Your task to perform on an android device: create a new album in the google photos Image 0: 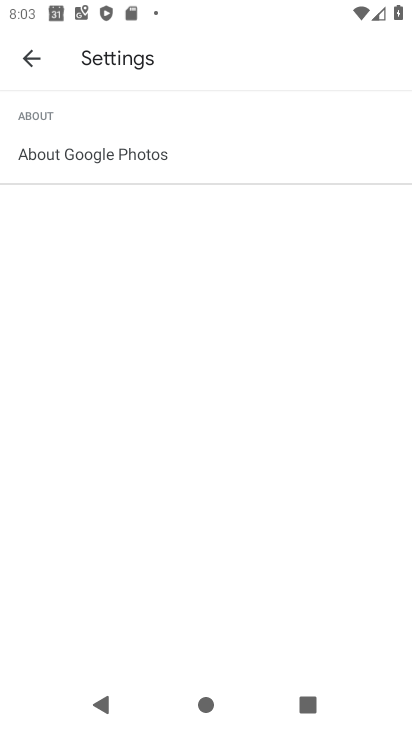
Step 0: press home button
Your task to perform on an android device: create a new album in the google photos Image 1: 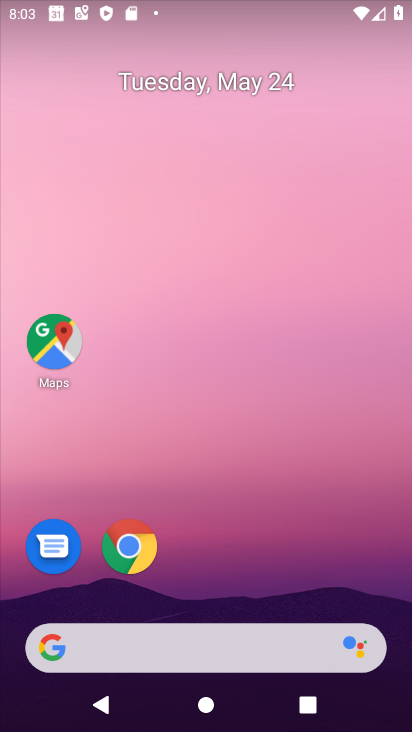
Step 1: drag from (219, 561) to (269, 1)
Your task to perform on an android device: create a new album in the google photos Image 2: 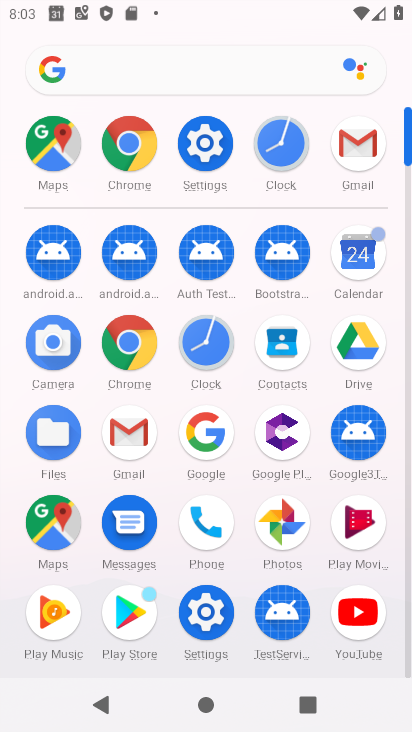
Step 2: click (267, 520)
Your task to perform on an android device: create a new album in the google photos Image 3: 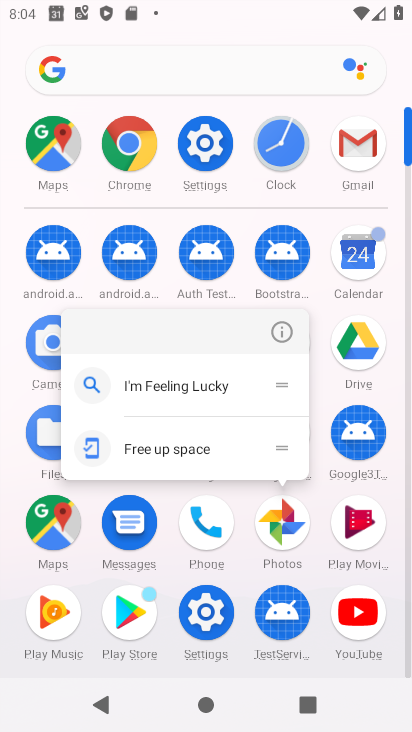
Step 3: click (294, 525)
Your task to perform on an android device: create a new album in the google photos Image 4: 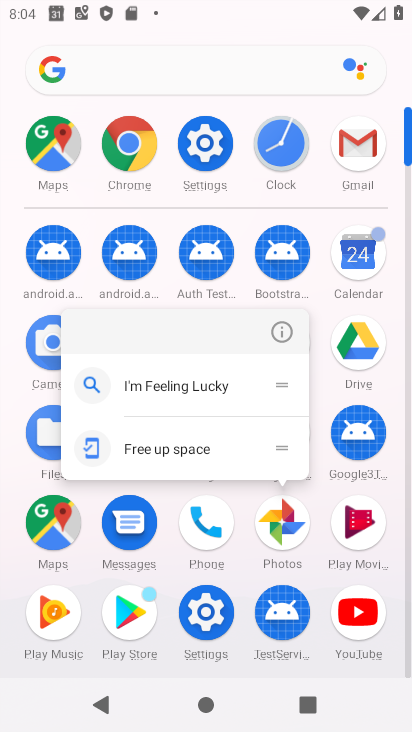
Step 4: click (294, 510)
Your task to perform on an android device: create a new album in the google photos Image 5: 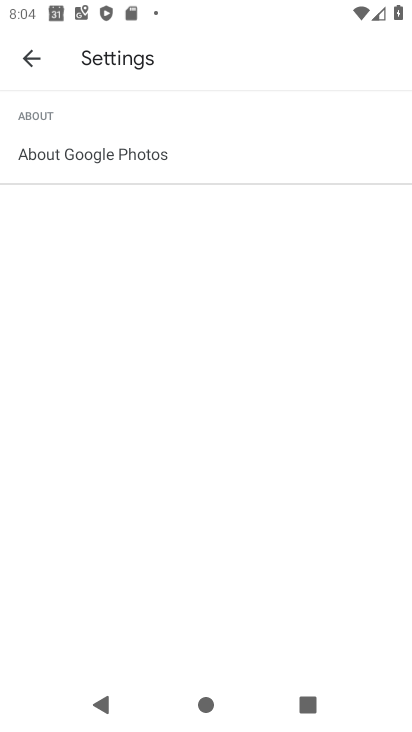
Step 5: click (38, 52)
Your task to perform on an android device: create a new album in the google photos Image 6: 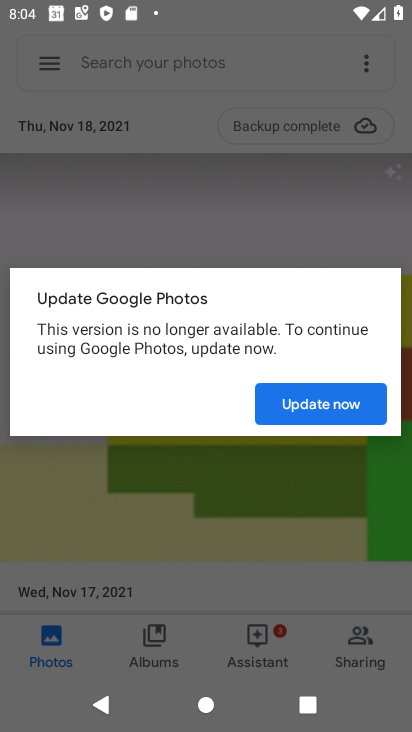
Step 6: click (292, 401)
Your task to perform on an android device: create a new album in the google photos Image 7: 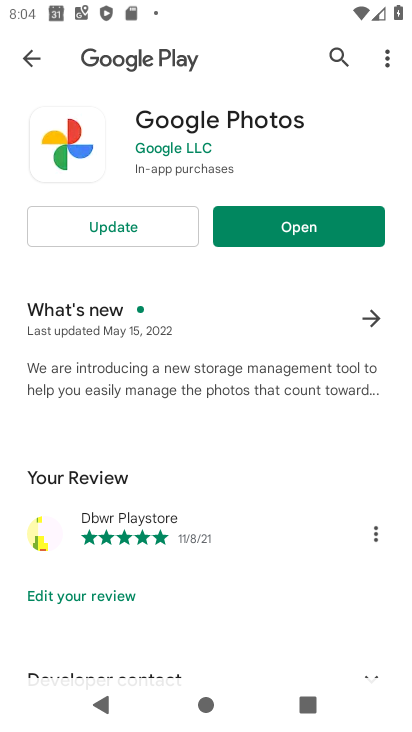
Step 7: click (295, 227)
Your task to perform on an android device: create a new album in the google photos Image 8: 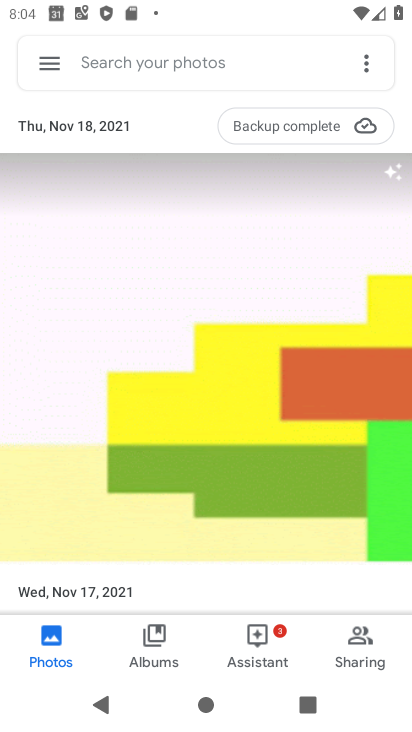
Step 8: click (149, 643)
Your task to perform on an android device: create a new album in the google photos Image 9: 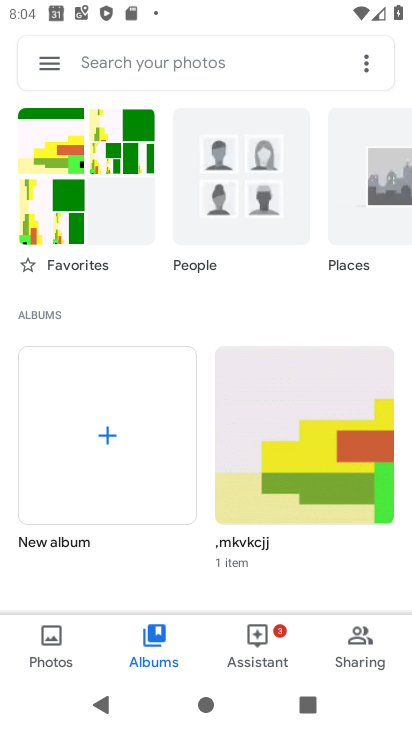
Step 9: click (112, 432)
Your task to perform on an android device: create a new album in the google photos Image 10: 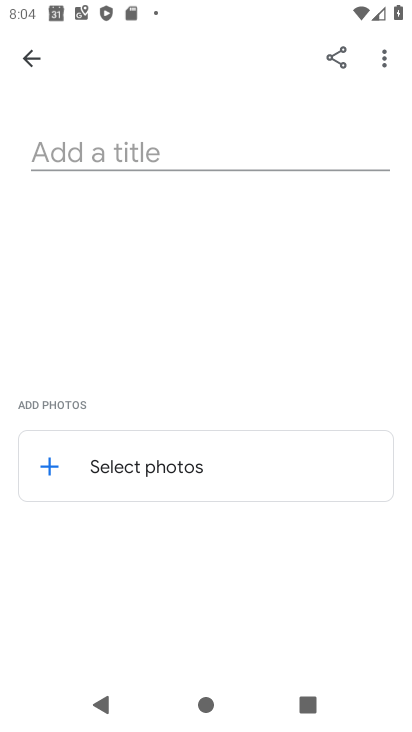
Step 10: click (215, 142)
Your task to perform on an android device: create a new album in the google photos Image 11: 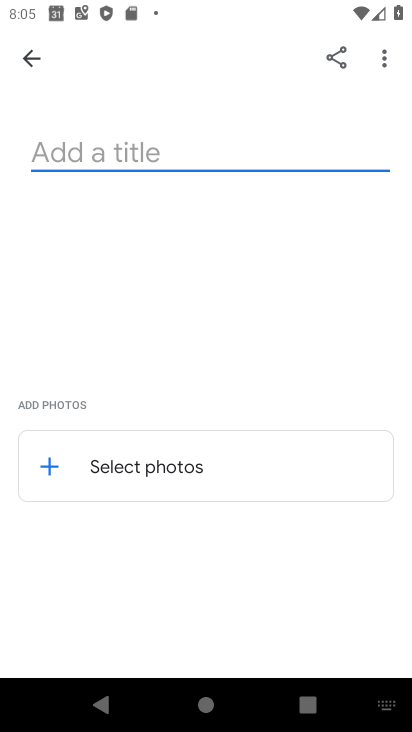
Step 11: type "Kailash Temple Khajuraho Bharat"
Your task to perform on an android device: create a new album in the google photos Image 12: 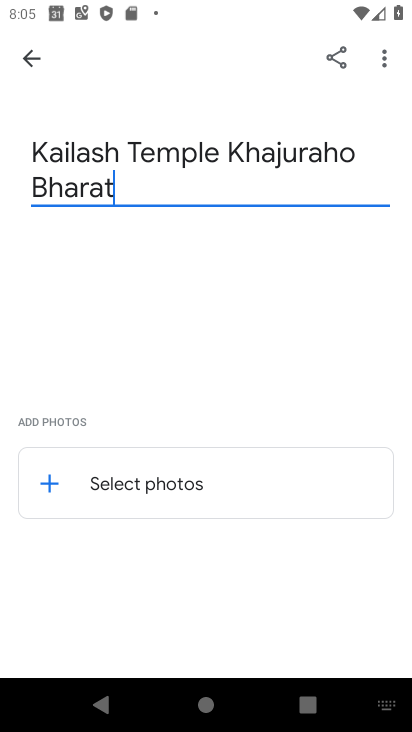
Step 12: click (45, 475)
Your task to perform on an android device: create a new album in the google photos Image 13: 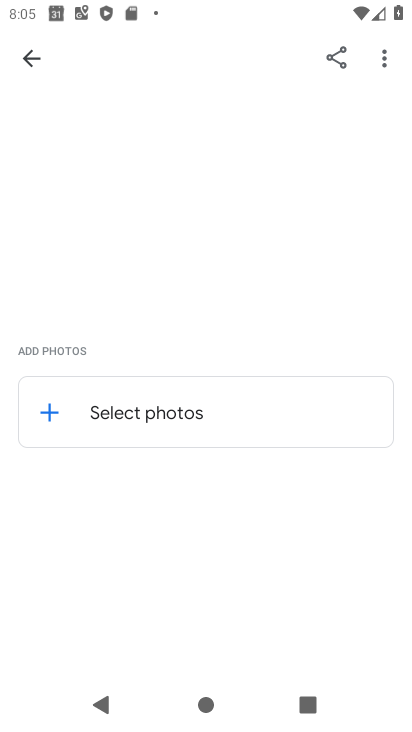
Step 13: click (99, 408)
Your task to perform on an android device: create a new album in the google photos Image 14: 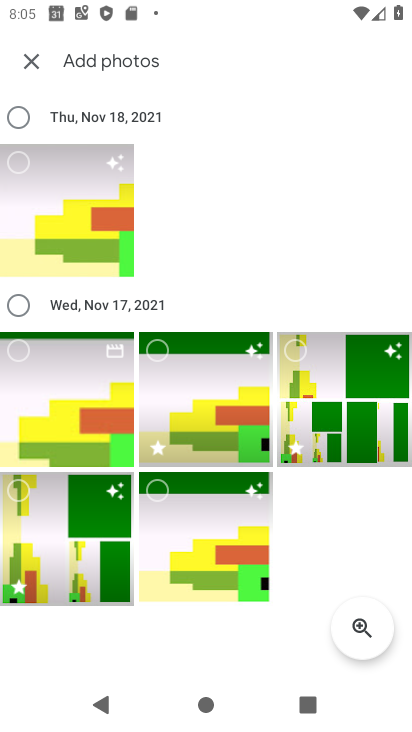
Step 14: click (156, 487)
Your task to perform on an android device: create a new album in the google photos Image 15: 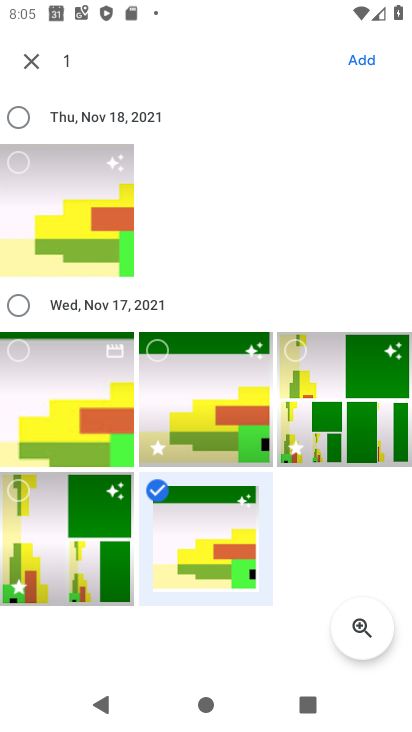
Step 15: click (158, 347)
Your task to perform on an android device: create a new album in the google photos Image 16: 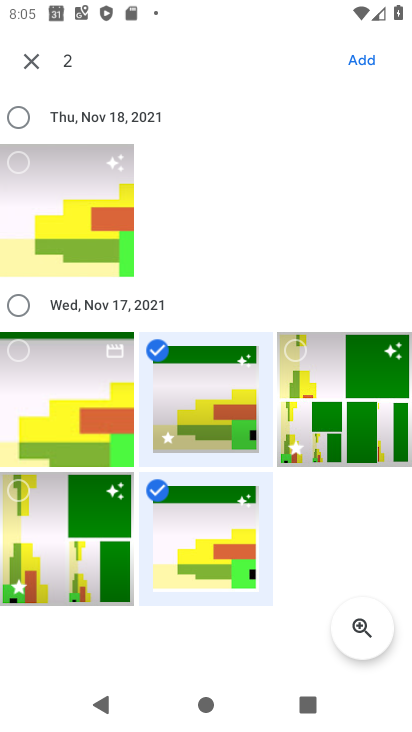
Step 16: click (289, 344)
Your task to perform on an android device: create a new album in the google photos Image 17: 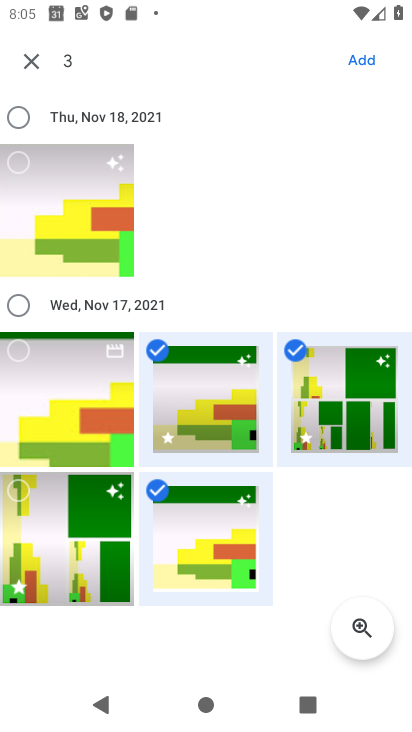
Step 17: click (366, 52)
Your task to perform on an android device: create a new album in the google photos Image 18: 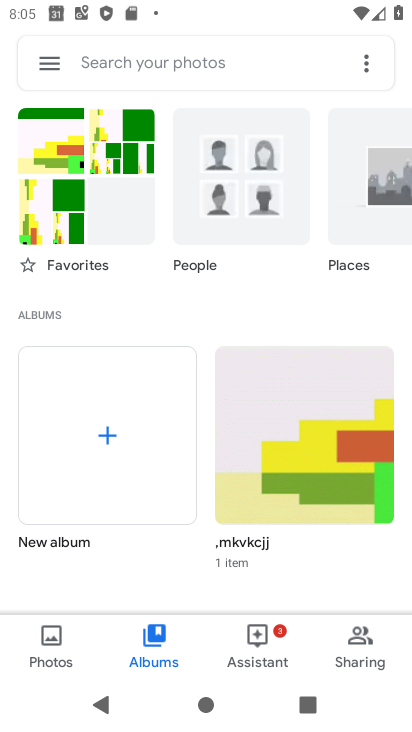
Step 18: task complete